Your task to perform on an android device: Go to sound settings Image 0: 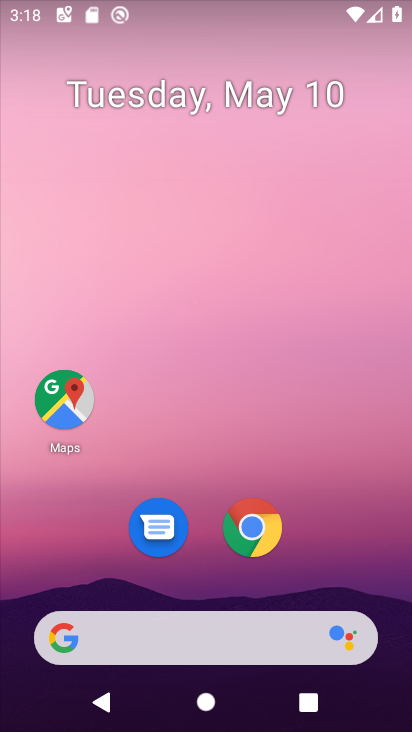
Step 0: click (400, 240)
Your task to perform on an android device: Go to sound settings Image 1: 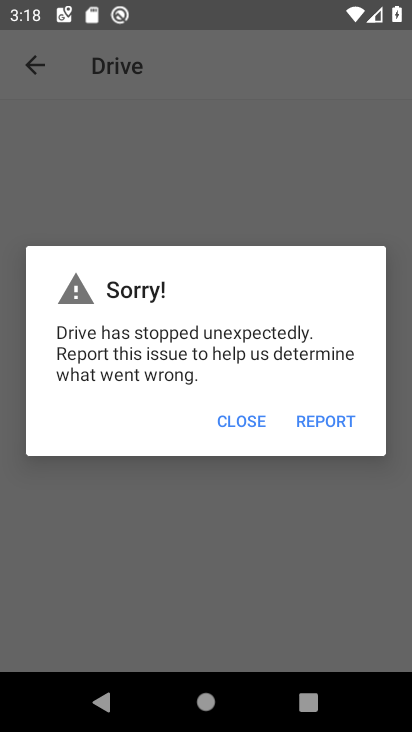
Step 1: press home button
Your task to perform on an android device: Go to sound settings Image 2: 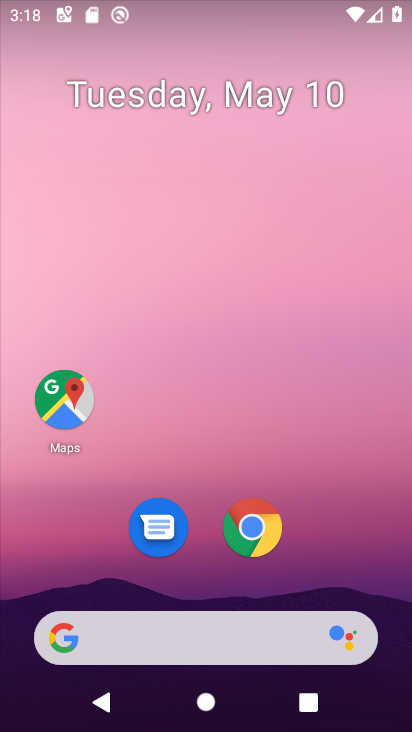
Step 2: drag from (391, 639) to (384, 258)
Your task to perform on an android device: Go to sound settings Image 3: 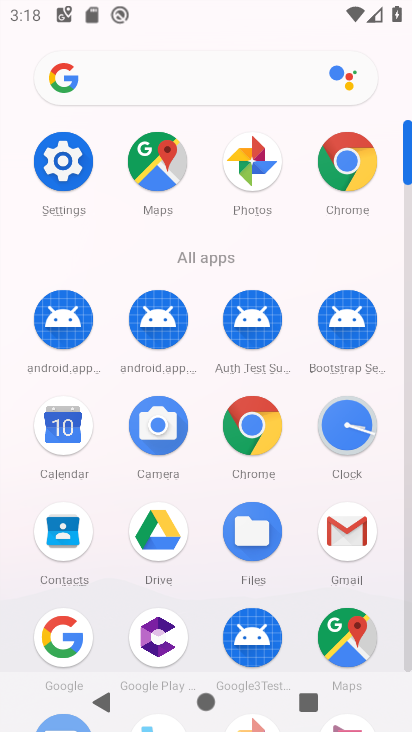
Step 3: click (84, 163)
Your task to perform on an android device: Go to sound settings Image 4: 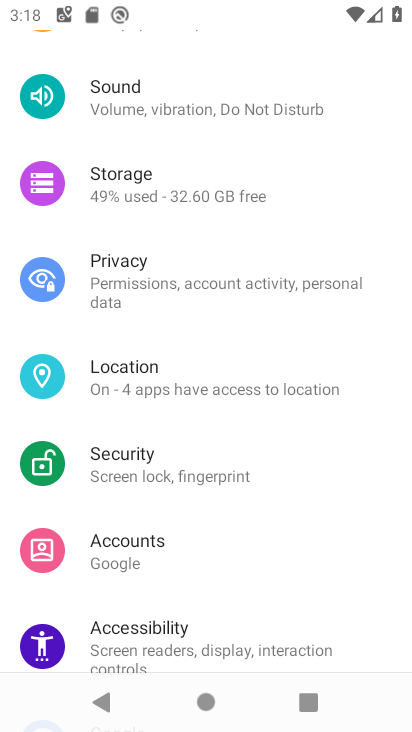
Step 4: click (135, 95)
Your task to perform on an android device: Go to sound settings Image 5: 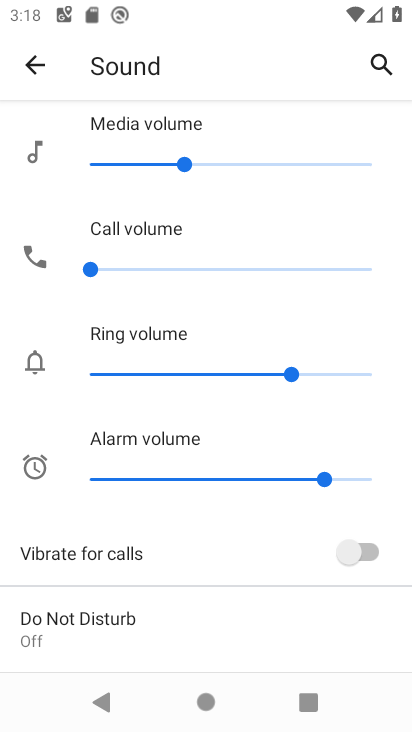
Step 5: task complete